Your task to perform on an android device: Open eBay Image 0: 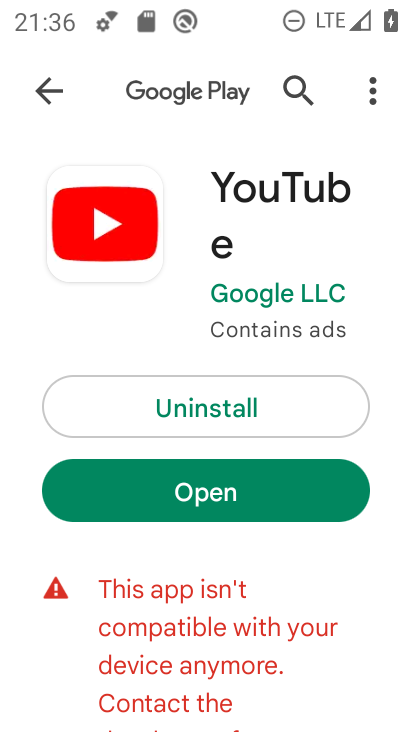
Step 0: press home button
Your task to perform on an android device: Open eBay Image 1: 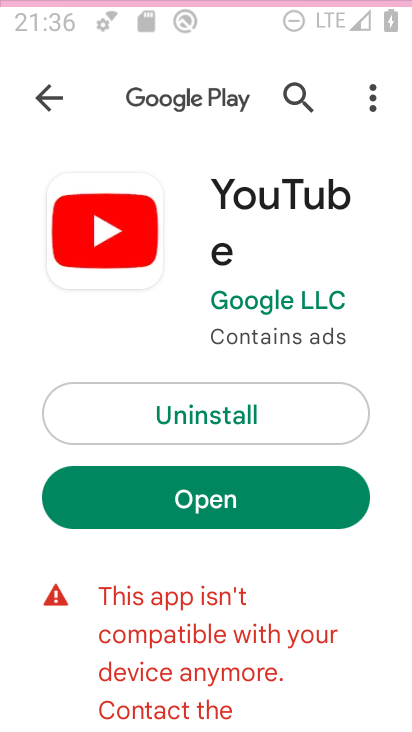
Step 1: drag from (219, 665) to (267, 188)
Your task to perform on an android device: Open eBay Image 2: 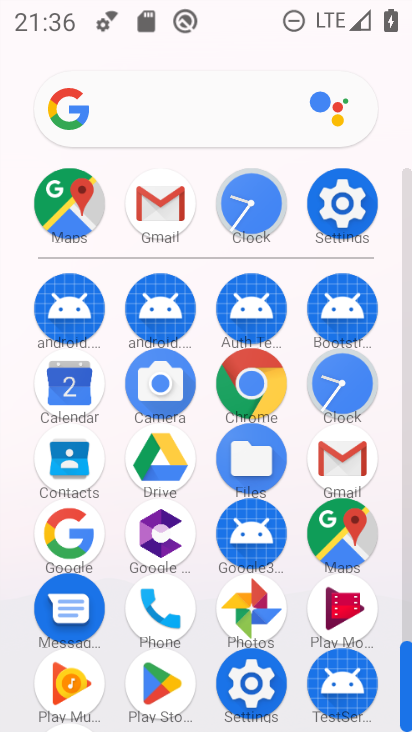
Step 2: click (176, 122)
Your task to perform on an android device: Open eBay Image 3: 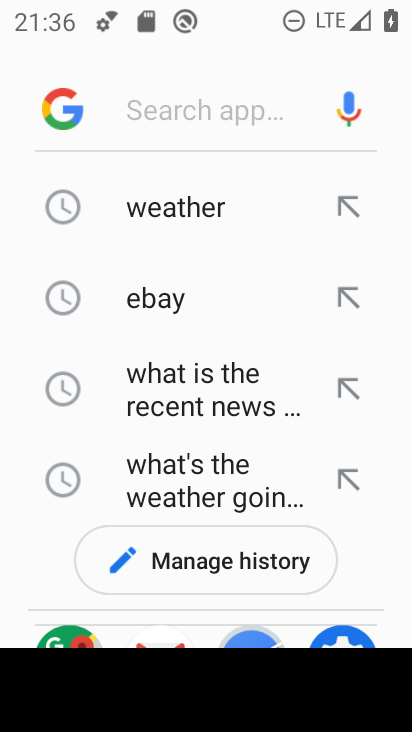
Step 3: type "eBay"
Your task to perform on an android device: Open eBay Image 4: 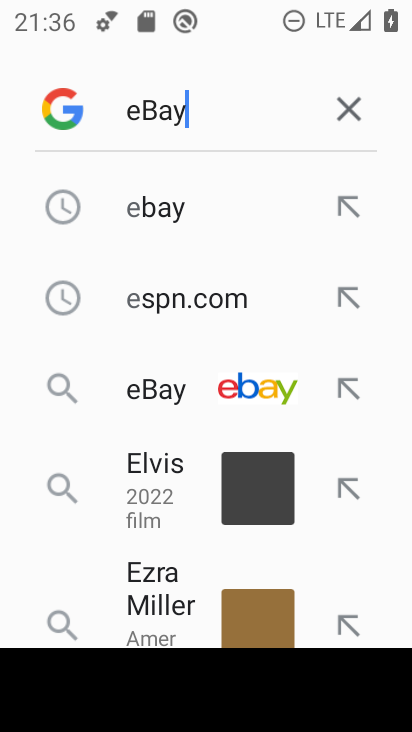
Step 4: type ""
Your task to perform on an android device: Open eBay Image 5: 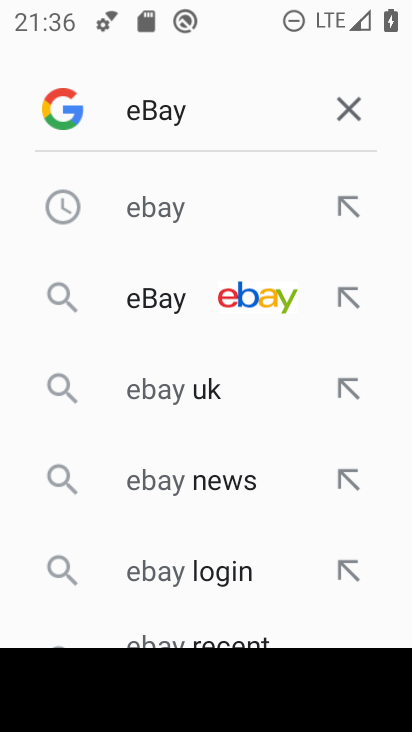
Step 5: click (155, 301)
Your task to perform on an android device: Open eBay Image 6: 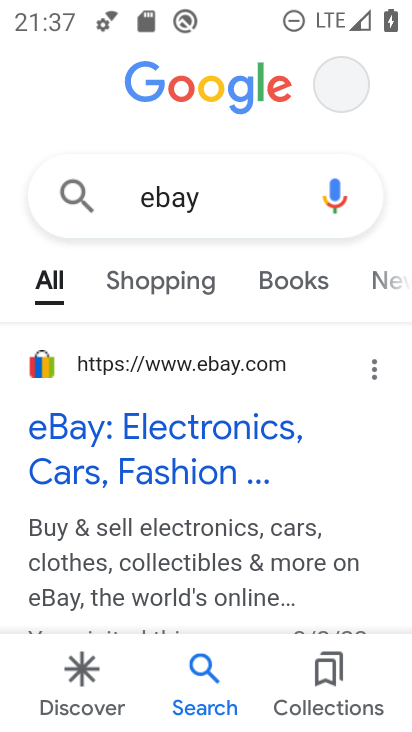
Step 6: drag from (257, 598) to (287, 306)
Your task to perform on an android device: Open eBay Image 7: 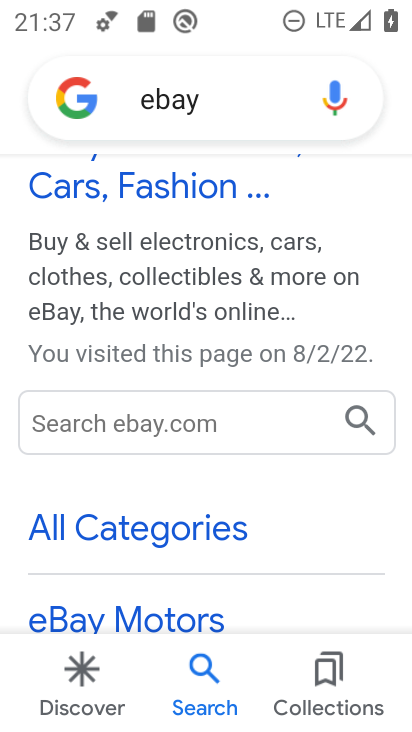
Step 7: drag from (266, 290) to (219, 648)
Your task to perform on an android device: Open eBay Image 8: 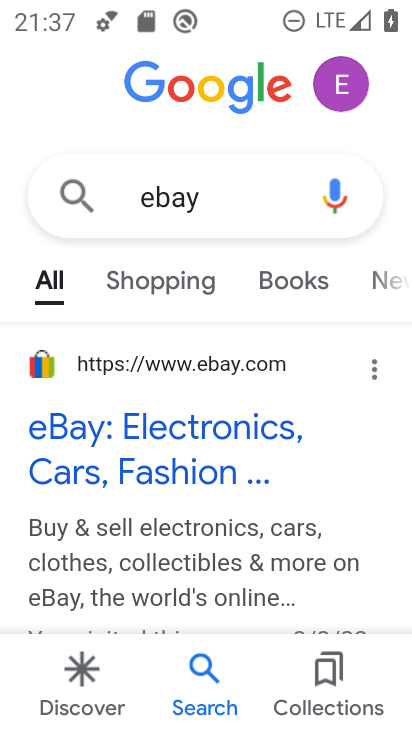
Step 8: click (143, 444)
Your task to perform on an android device: Open eBay Image 9: 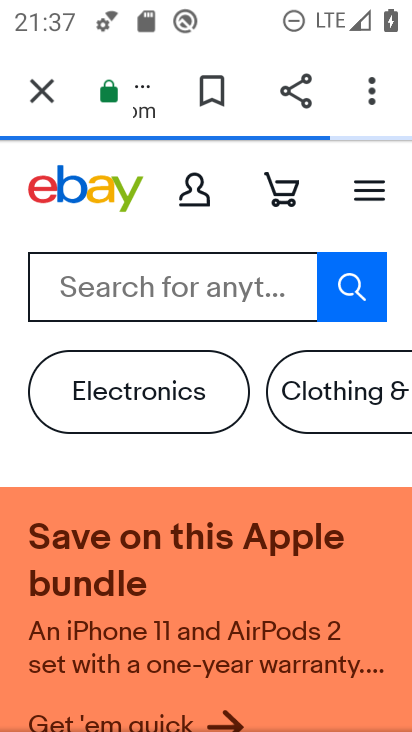
Step 9: task complete